Your task to perform on an android device: allow cookies in the chrome app Image 0: 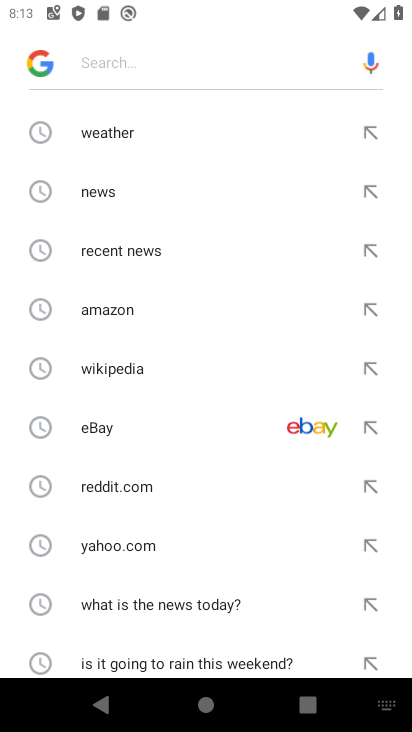
Step 0: press home button
Your task to perform on an android device: allow cookies in the chrome app Image 1: 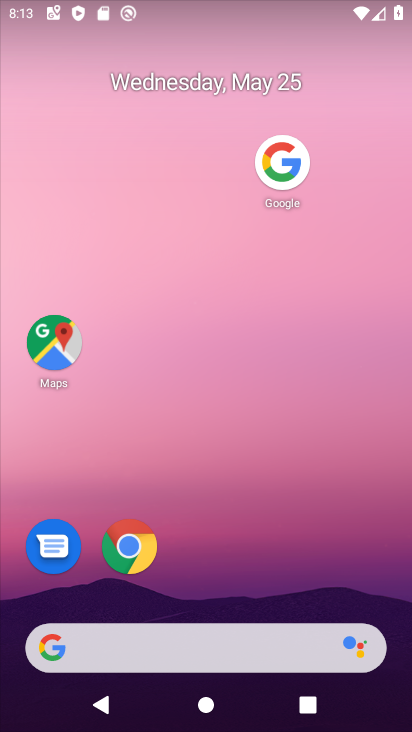
Step 1: click (131, 549)
Your task to perform on an android device: allow cookies in the chrome app Image 2: 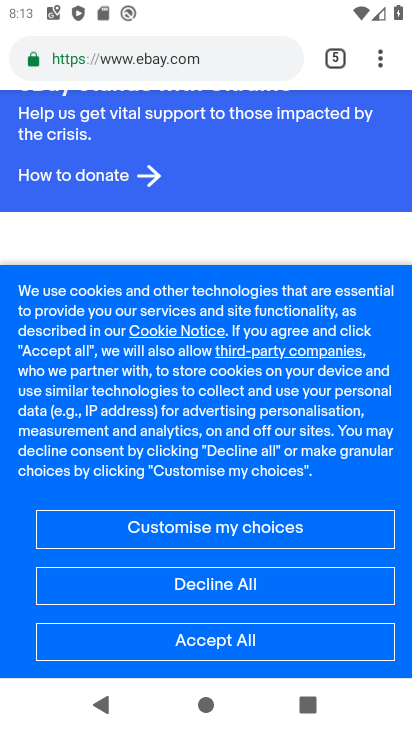
Step 2: drag from (380, 60) to (238, 572)
Your task to perform on an android device: allow cookies in the chrome app Image 3: 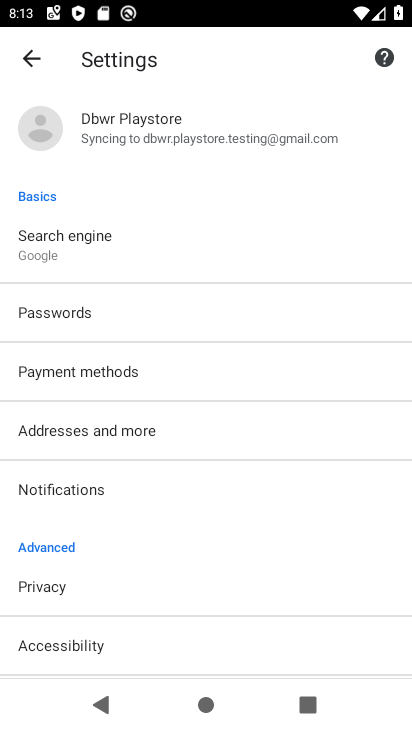
Step 3: drag from (179, 631) to (407, 241)
Your task to perform on an android device: allow cookies in the chrome app Image 4: 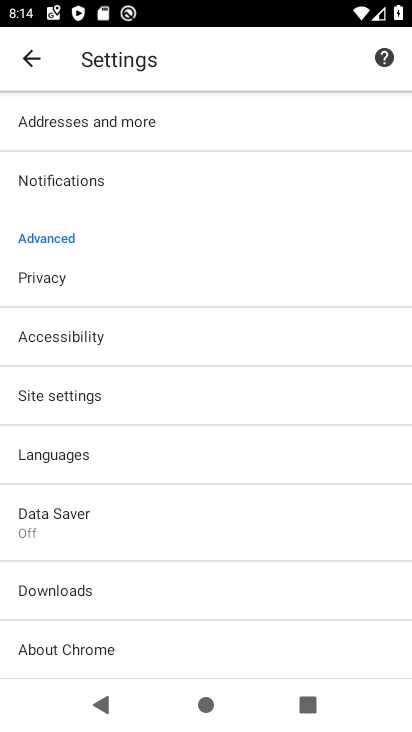
Step 4: click (132, 397)
Your task to perform on an android device: allow cookies in the chrome app Image 5: 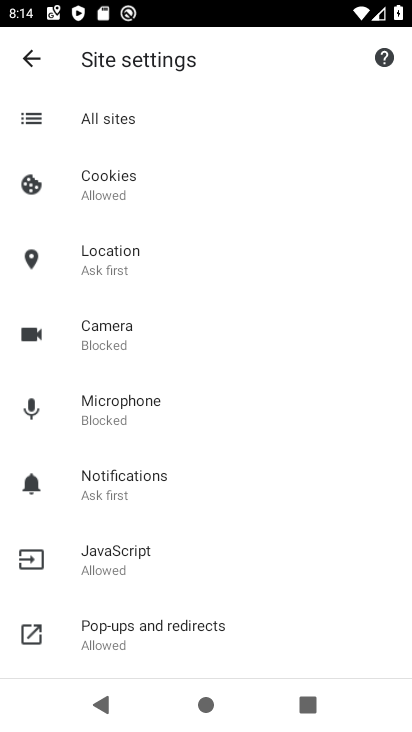
Step 5: click (141, 185)
Your task to perform on an android device: allow cookies in the chrome app Image 6: 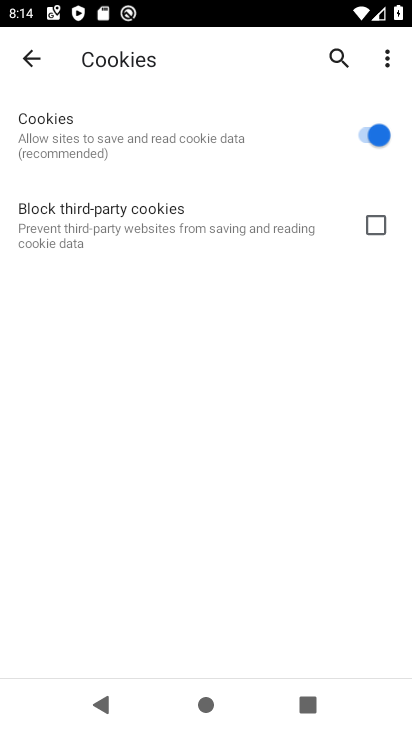
Step 6: task complete